Your task to perform on an android device: turn on location history Image 0: 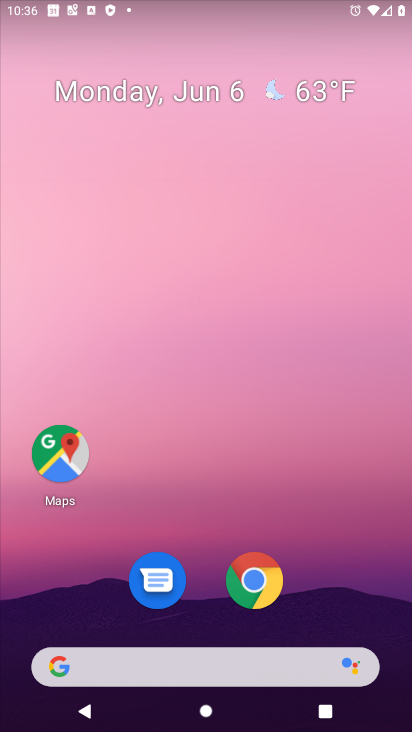
Step 0: drag from (337, 428) to (282, 4)
Your task to perform on an android device: turn on location history Image 1: 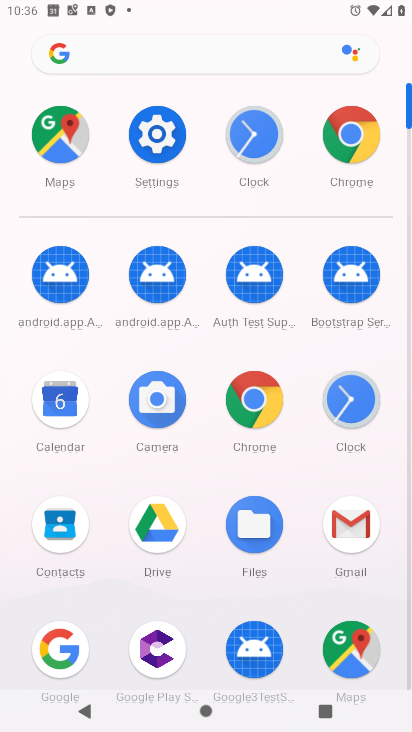
Step 1: click (171, 124)
Your task to perform on an android device: turn on location history Image 2: 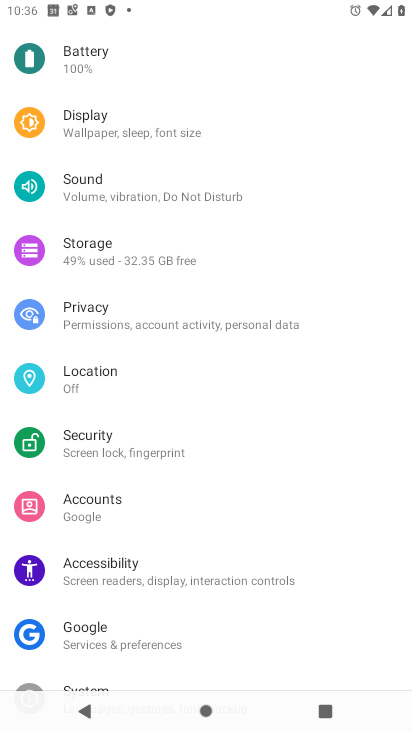
Step 2: click (124, 366)
Your task to perform on an android device: turn on location history Image 3: 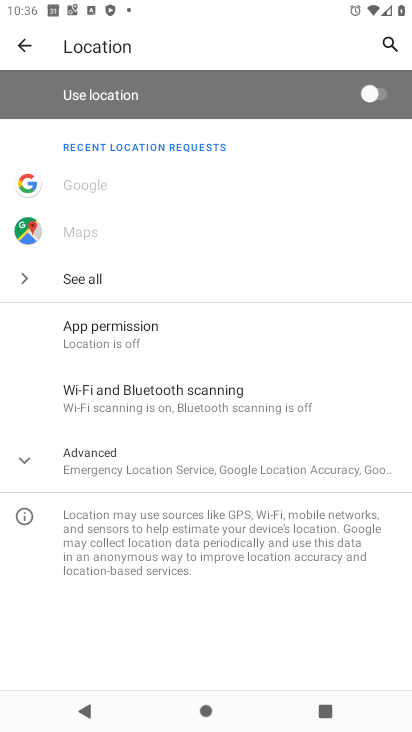
Step 3: click (104, 458)
Your task to perform on an android device: turn on location history Image 4: 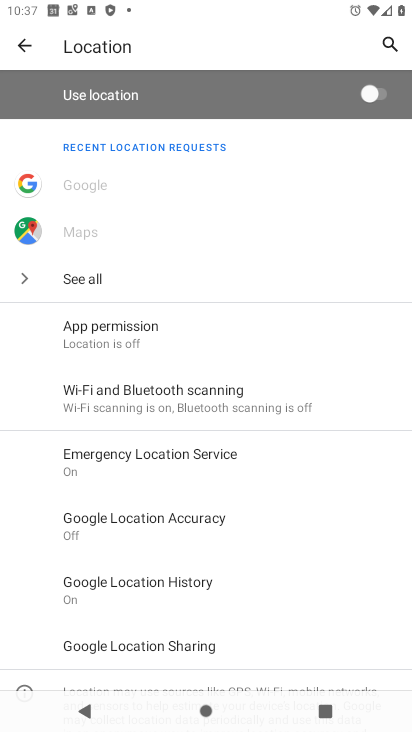
Step 4: click (110, 587)
Your task to perform on an android device: turn on location history Image 5: 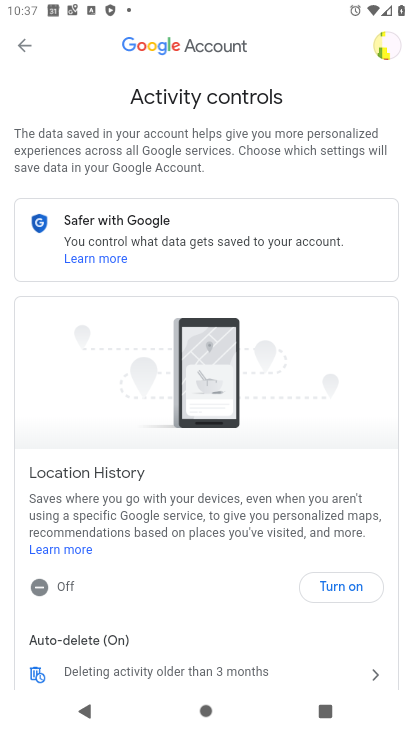
Step 5: drag from (186, 625) to (204, 185)
Your task to perform on an android device: turn on location history Image 6: 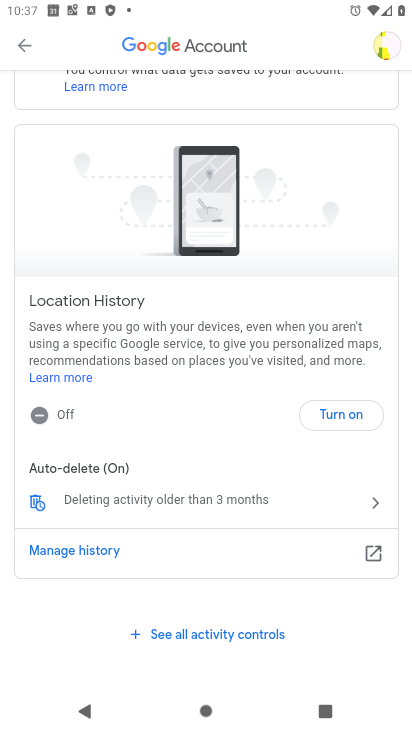
Step 6: click (350, 422)
Your task to perform on an android device: turn on location history Image 7: 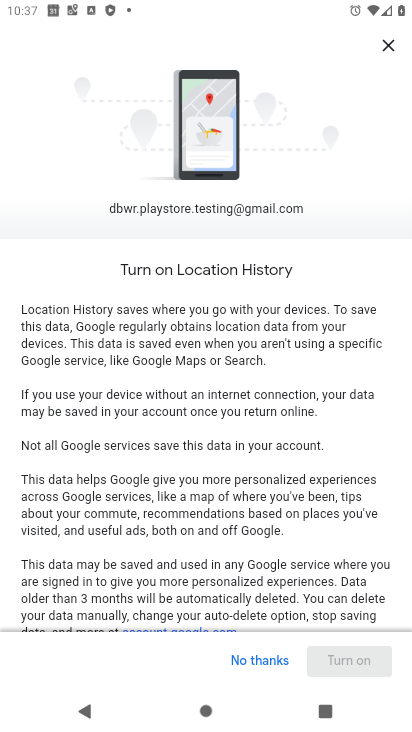
Step 7: drag from (318, 560) to (279, 115)
Your task to perform on an android device: turn on location history Image 8: 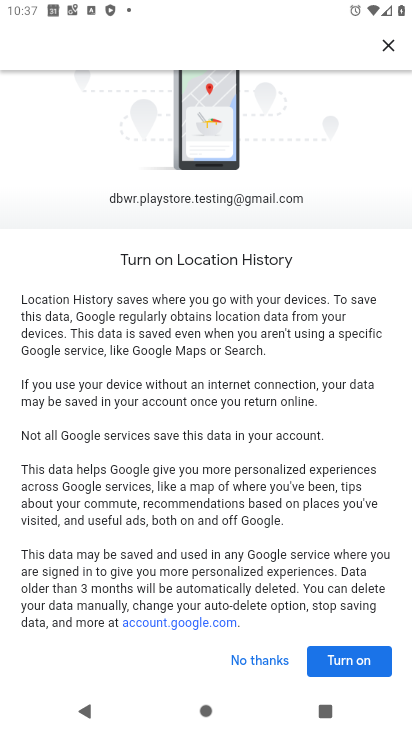
Step 8: drag from (284, 532) to (233, 59)
Your task to perform on an android device: turn on location history Image 9: 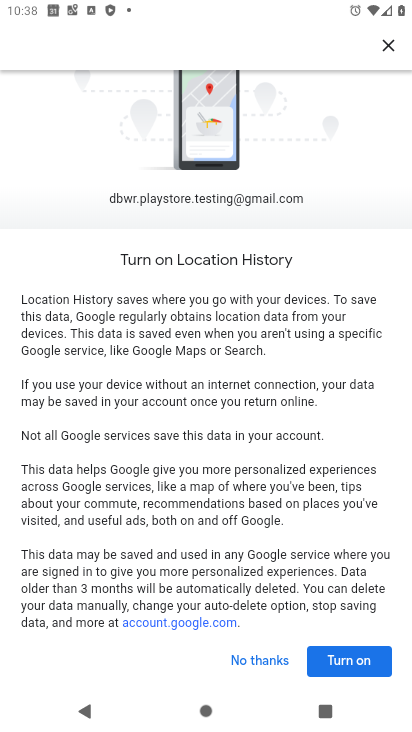
Step 9: drag from (247, 525) to (227, 85)
Your task to perform on an android device: turn on location history Image 10: 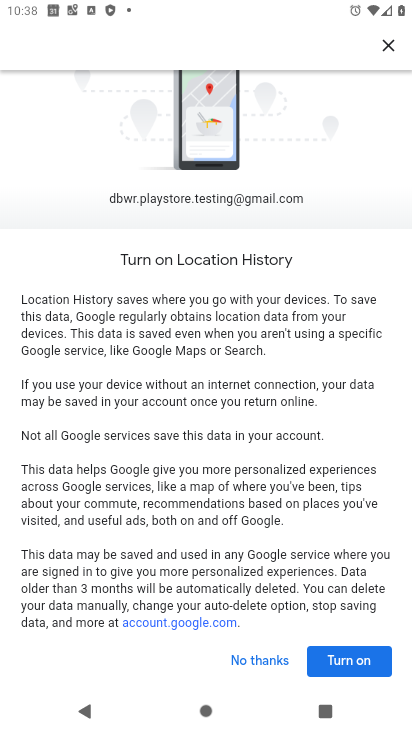
Step 10: drag from (249, 551) to (221, 241)
Your task to perform on an android device: turn on location history Image 11: 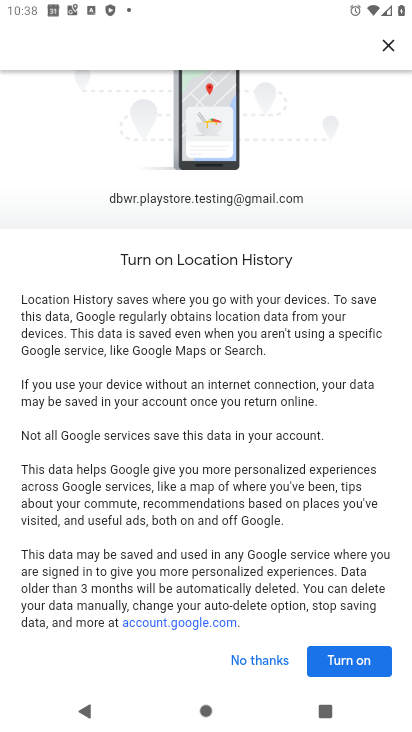
Step 11: click (335, 663)
Your task to perform on an android device: turn on location history Image 12: 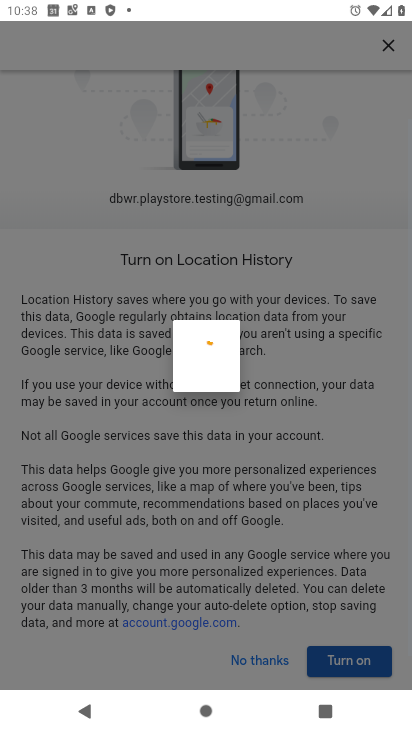
Step 12: click (335, 663)
Your task to perform on an android device: turn on location history Image 13: 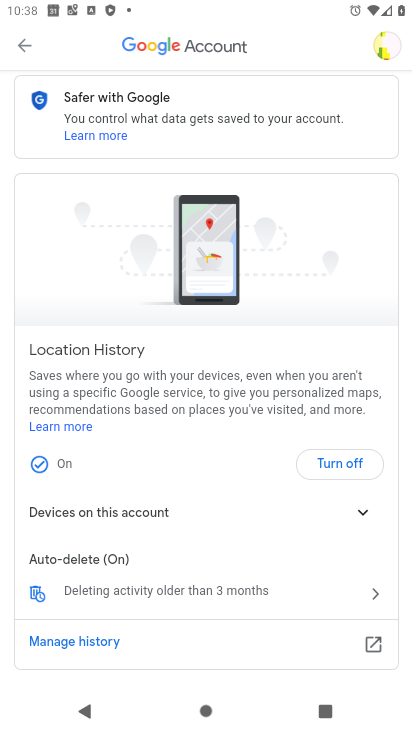
Step 13: task complete